Your task to perform on an android device: Open calendar and show me the fourth week of next month Image 0: 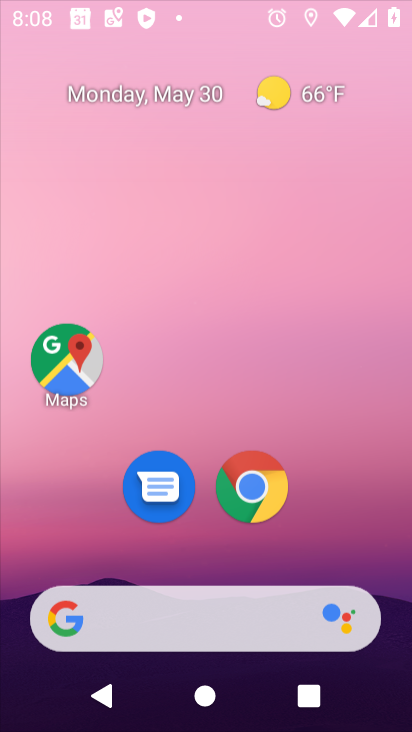
Step 0: press home button
Your task to perform on an android device: Open calendar and show me the fourth week of next month Image 1: 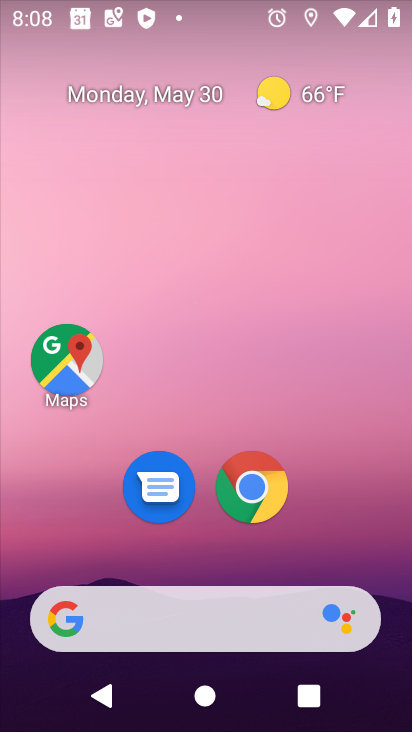
Step 1: drag from (333, 560) to (321, 164)
Your task to perform on an android device: Open calendar and show me the fourth week of next month Image 2: 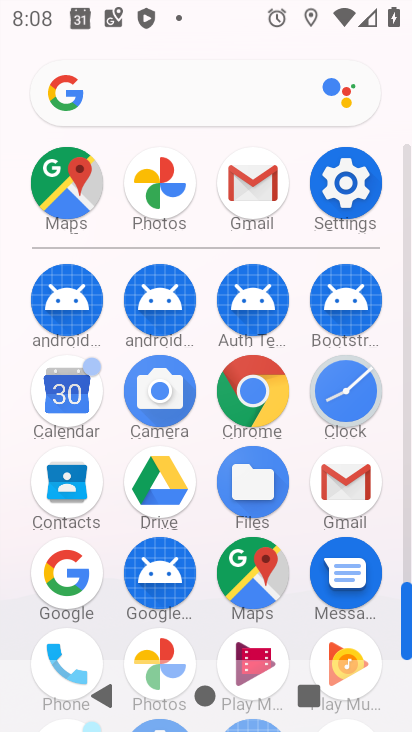
Step 2: click (63, 388)
Your task to perform on an android device: Open calendar and show me the fourth week of next month Image 3: 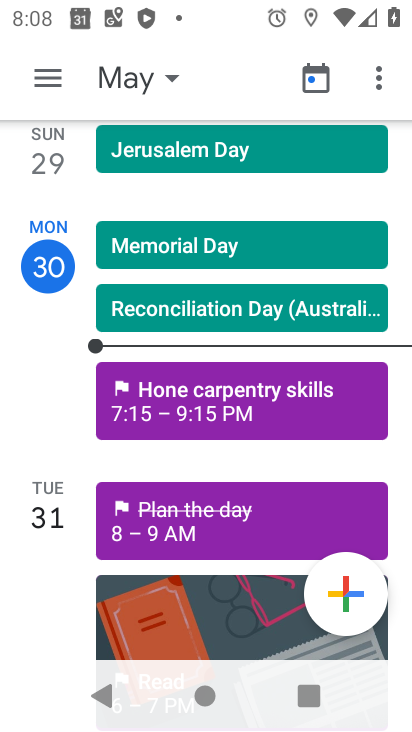
Step 3: click (173, 86)
Your task to perform on an android device: Open calendar and show me the fourth week of next month Image 4: 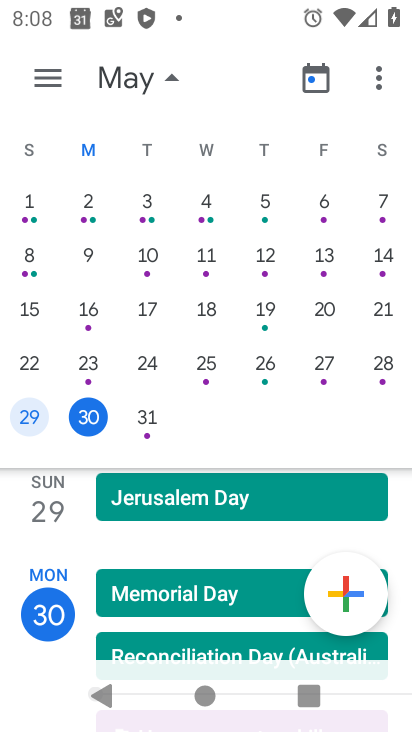
Step 4: drag from (350, 292) to (147, 296)
Your task to perform on an android device: Open calendar and show me the fourth week of next month Image 5: 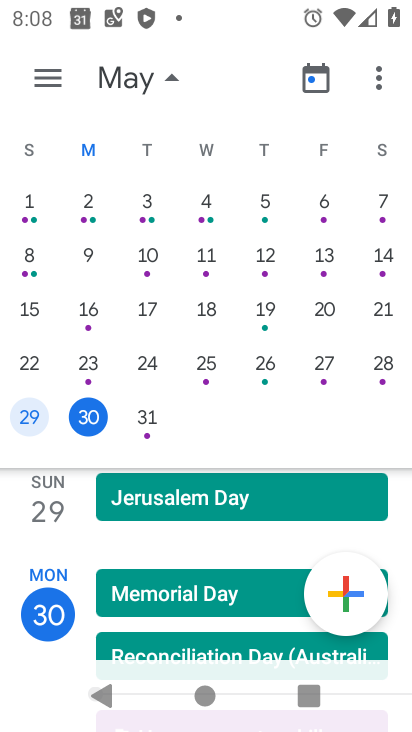
Step 5: drag from (365, 288) to (84, 261)
Your task to perform on an android device: Open calendar and show me the fourth week of next month Image 6: 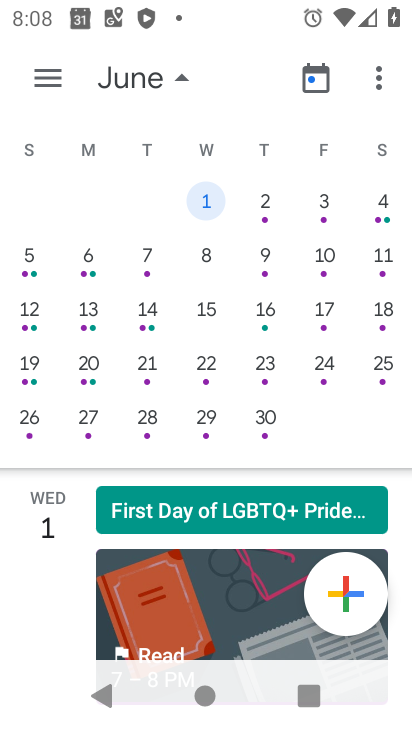
Step 6: click (325, 369)
Your task to perform on an android device: Open calendar and show me the fourth week of next month Image 7: 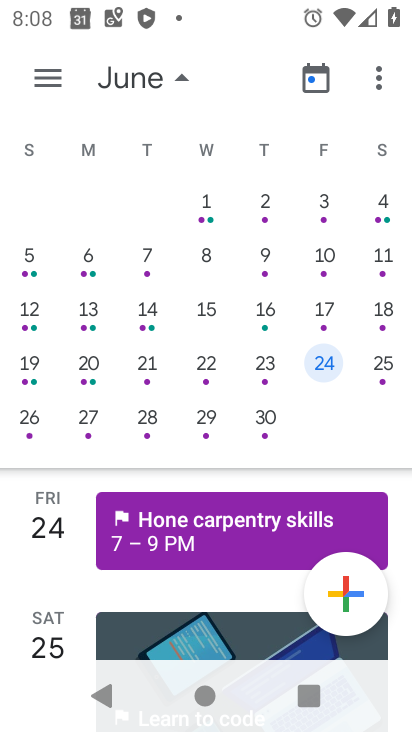
Step 7: task complete